Your task to perform on an android device: What is the news today? Image 0: 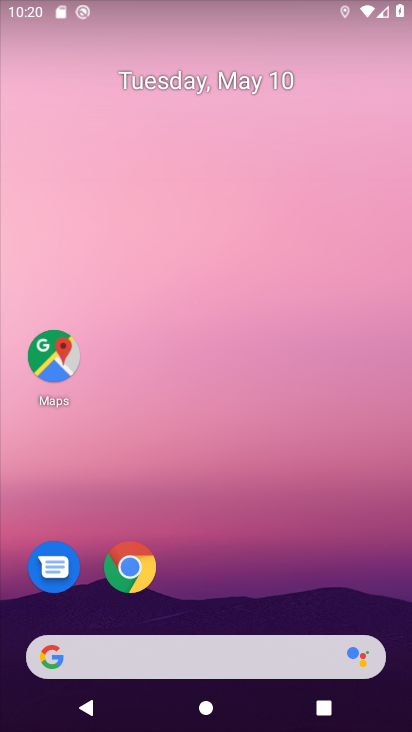
Step 0: click (160, 659)
Your task to perform on an android device: What is the news today? Image 1: 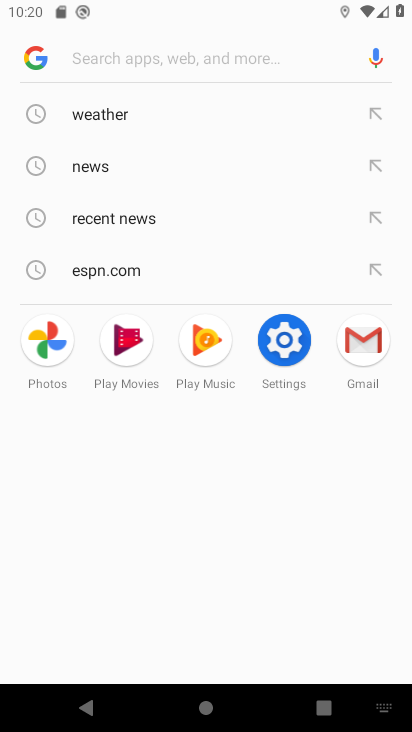
Step 1: click (108, 173)
Your task to perform on an android device: What is the news today? Image 2: 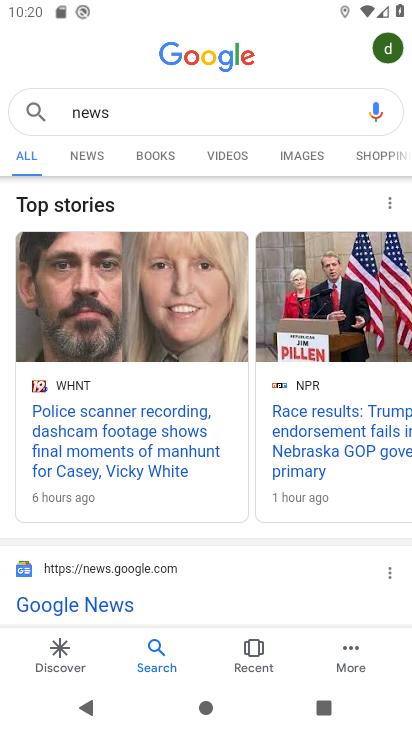
Step 2: task complete